Your task to perform on an android device: Play the last video I watched on Youtube Image 0: 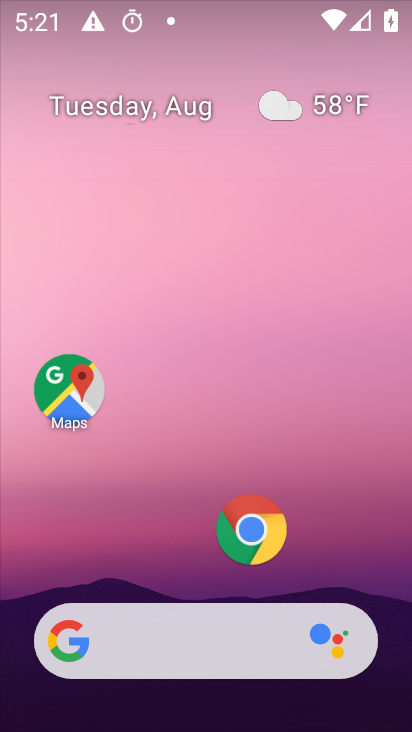
Step 0: drag from (157, 505) to (126, 218)
Your task to perform on an android device: Play the last video I watched on Youtube Image 1: 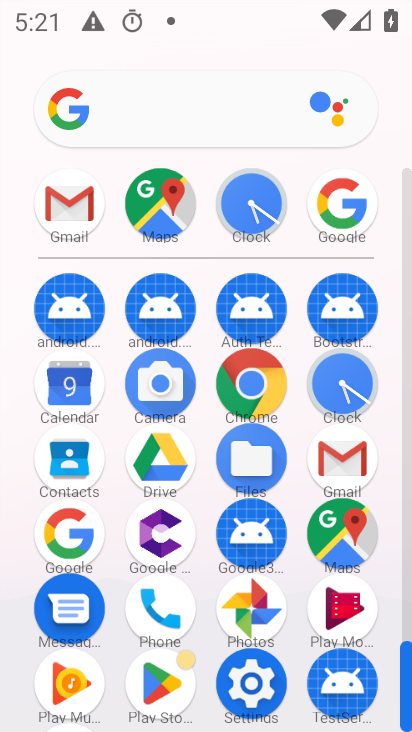
Step 1: drag from (208, 578) to (208, 307)
Your task to perform on an android device: Play the last video I watched on Youtube Image 2: 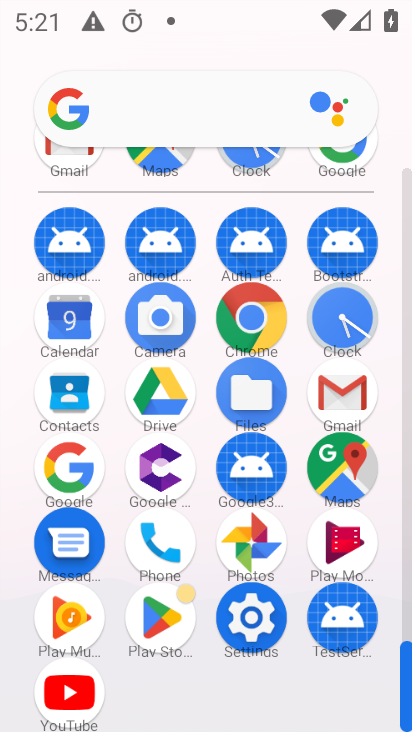
Step 2: click (68, 698)
Your task to perform on an android device: Play the last video I watched on Youtube Image 3: 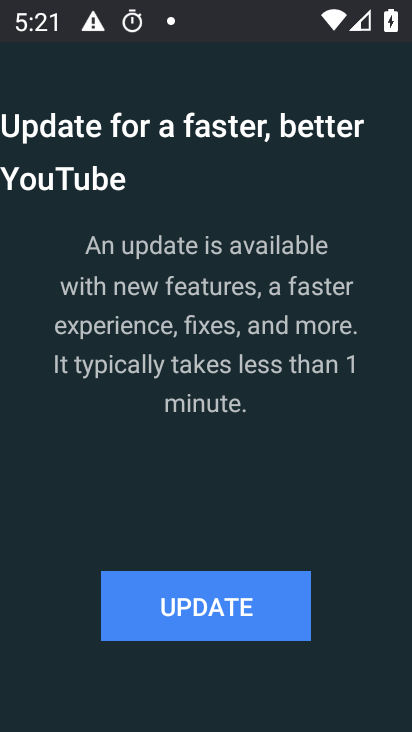
Step 3: click (194, 622)
Your task to perform on an android device: Play the last video I watched on Youtube Image 4: 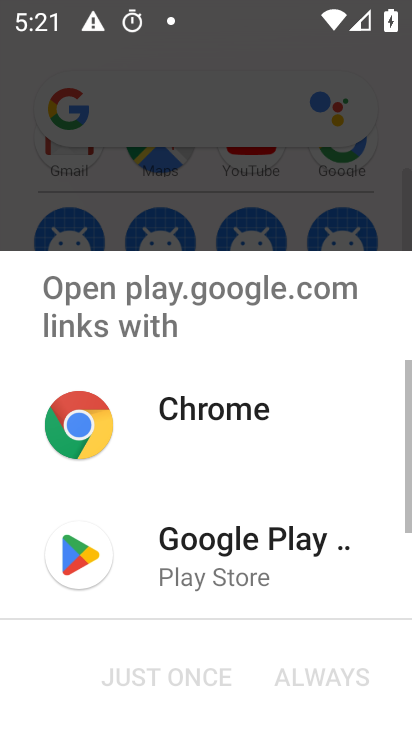
Step 4: click (222, 577)
Your task to perform on an android device: Play the last video I watched on Youtube Image 5: 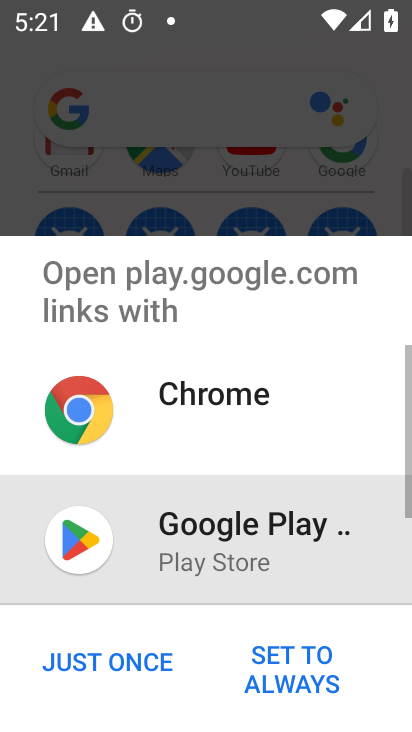
Step 5: click (163, 657)
Your task to perform on an android device: Play the last video I watched on Youtube Image 6: 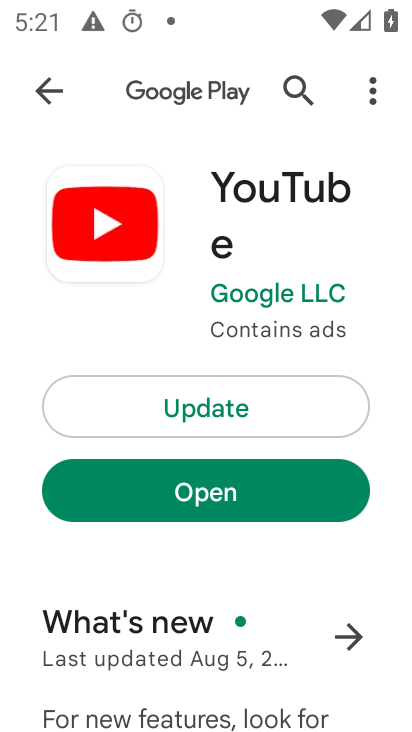
Step 6: click (188, 393)
Your task to perform on an android device: Play the last video I watched on Youtube Image 7: 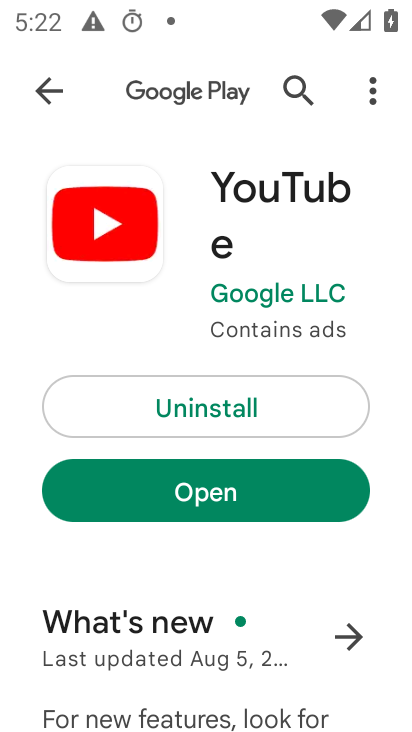
Step 7: click (303, 473)
Your task to perform on an android device: Play the last video I watched on Youtube Image 8: 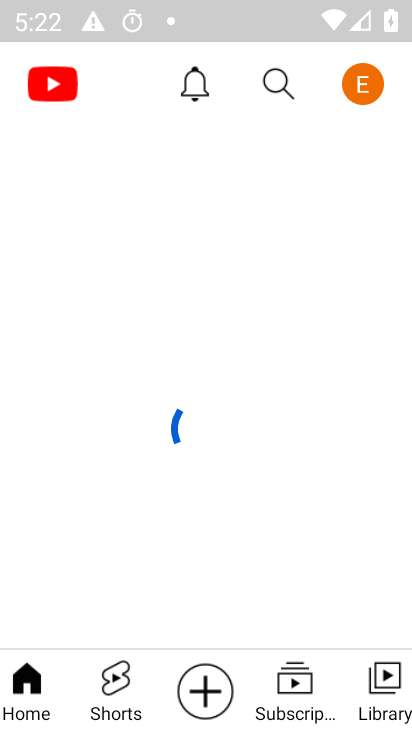
Step 8: click (385, 698)
Your task to perform on an android device: Play the last video I watched on Youtube Image 9: 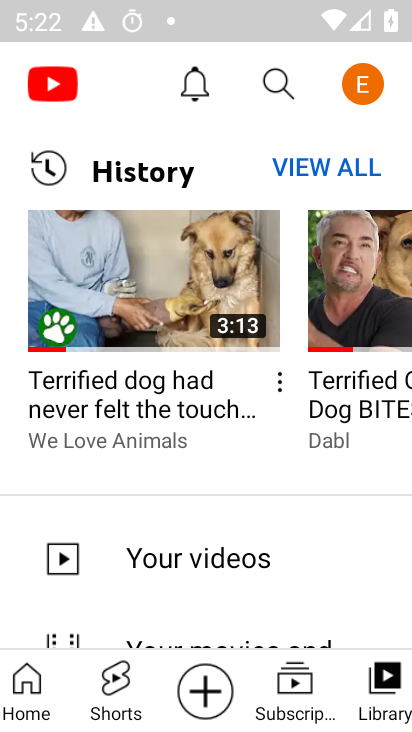
Step 9: drag from (207, 519) to (206, 218)
Your task to perform on an android device: Play the last video I watched on Youtube Image 10: 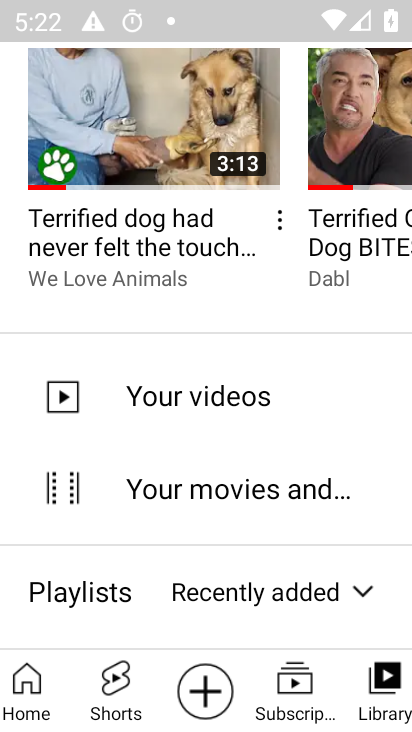
Step 10: click (133, 151)
Your task to perform on an android device: Play the last video I watched on Youtube Image 11: 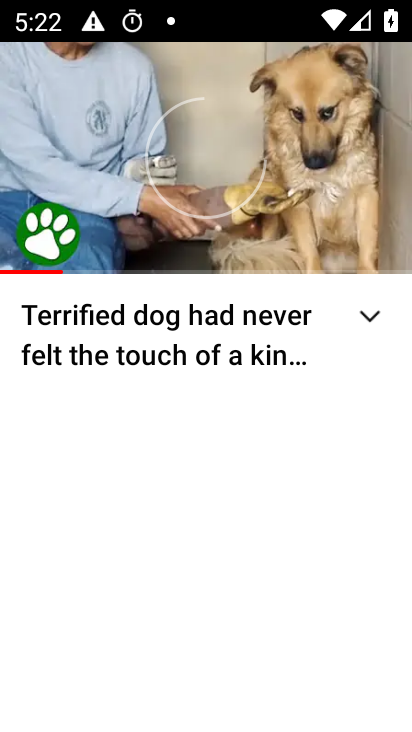
Step 11: click (172, 168)
Your task to perform on an android device: Play the last video I watched on Youtube Image 12: 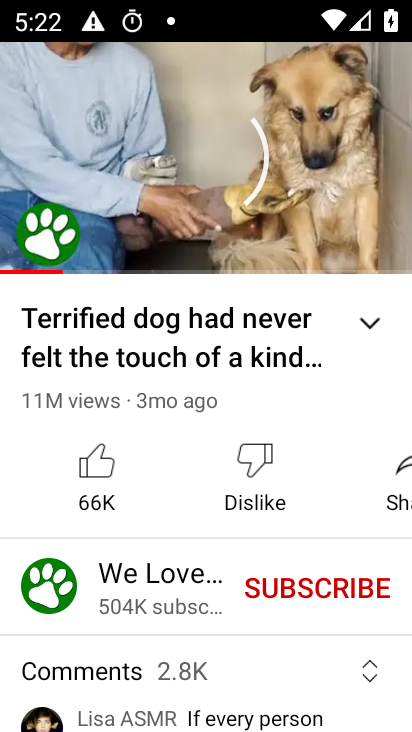
Step 12: click (189, 174)
Your task to perform on an android device: Play the last video I watched on Youtube Image 13: 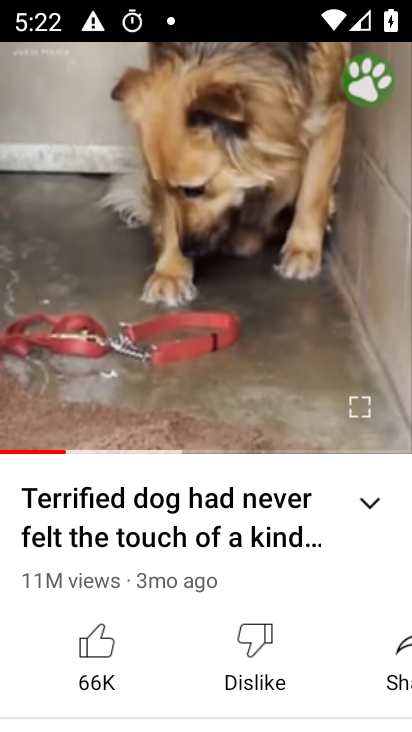
Step 13: click (196, 228)
Your task to perform on an android device: Play the last video I watched on Youtube Image 14: 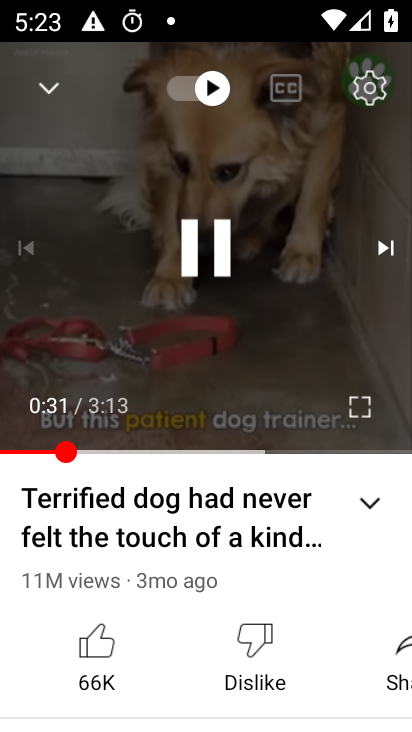
Step 14: click (202, 256)
Your task to perform on an android device: Play the last video I watched on Youtube Image 15: 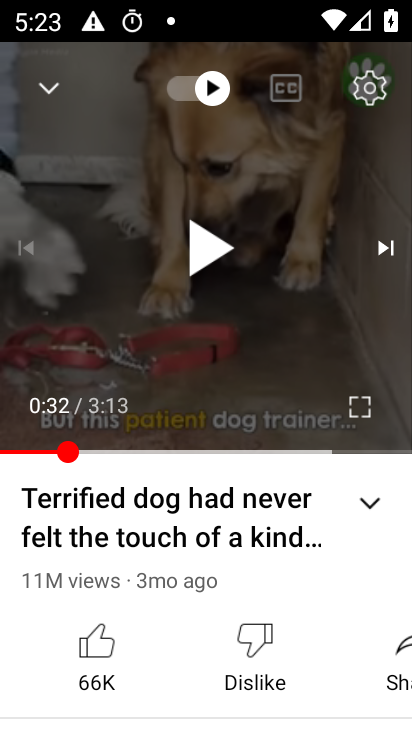
Step 15: task complete